Your task to perform on an android device: change alarm snooze length Image 0: 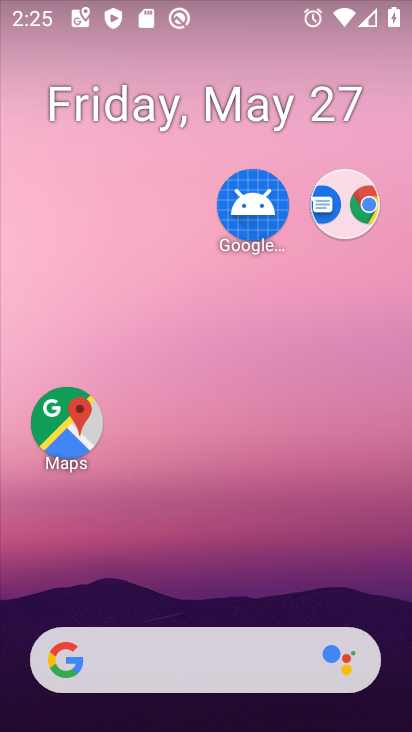
Step 0: drag from (249, 575) to (272, 345)
Your task to perform on an android device: change alarm snooze length Image 1: 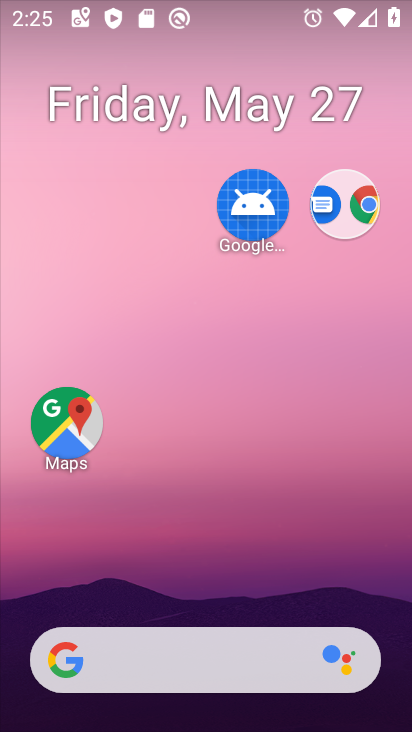
Step 1: drag from (222, 689) to (240, 340)
Your task to perform on an android device: change alarm snooze length Image 2: 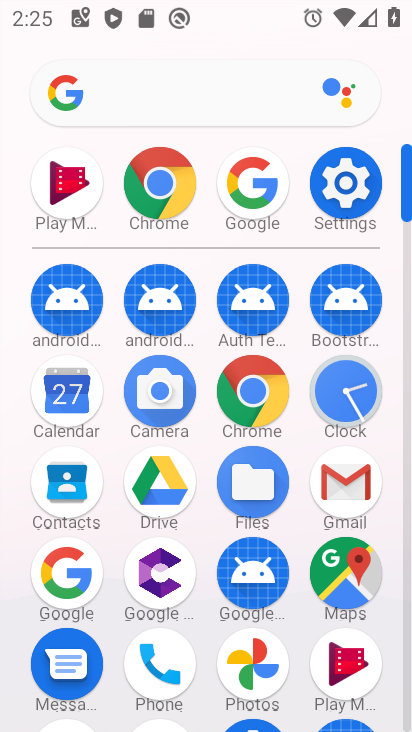
Step 2: click (353, 404)
Your task to perform on an android device: change alarm snooze length Image 3: 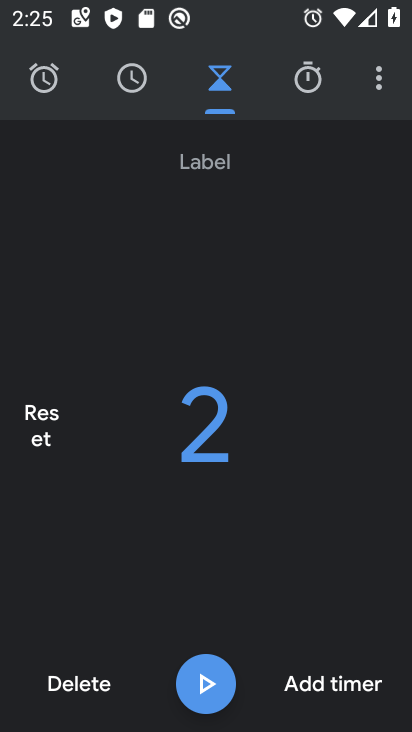
Step 3: click (387, 80)
Your task to perform on an android device: change alarm snooze length Image 4: 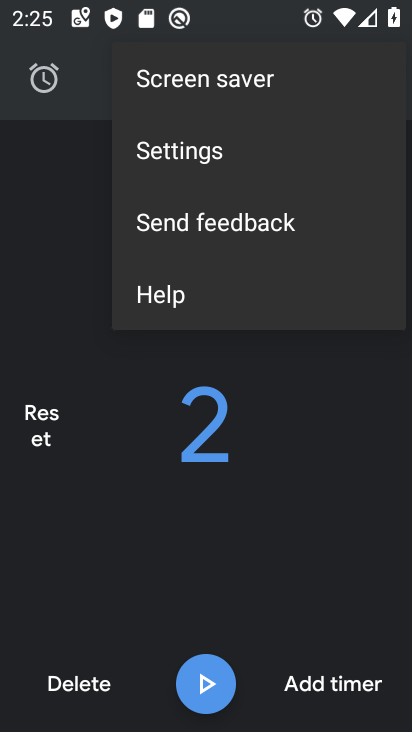
Step 4: click (231, 156)
Your task to perform on an android device: change alarm snooze length Image 5: 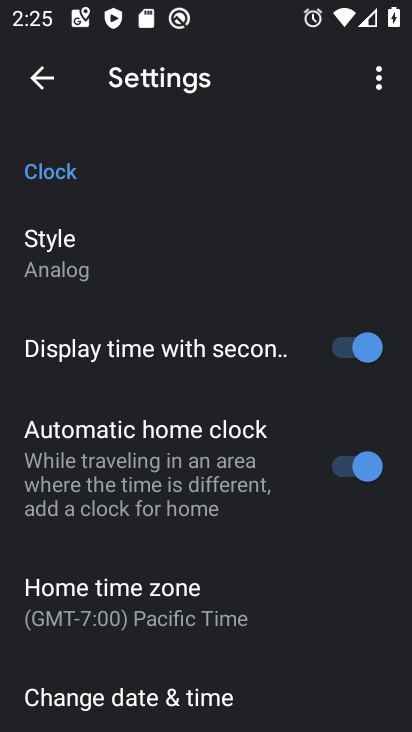
Step 5: drag from (227, 285) to (258, 163)
Your task to perform on an android device: change alarm snooze length Image 6: 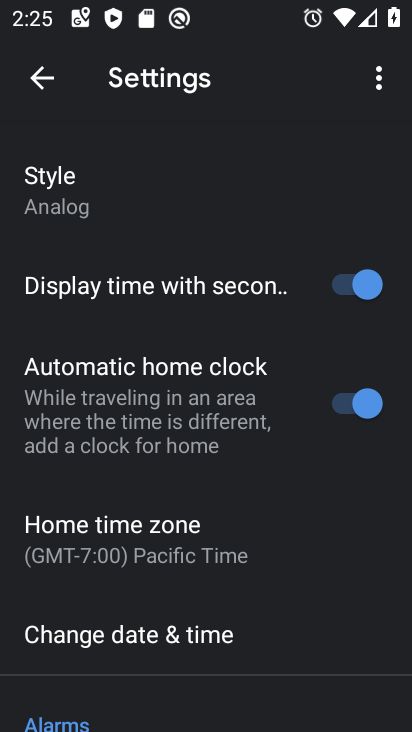
Step 6: drag from (199, 507) to (215, 268)
Your task to perform on an android device: change alarm snooze length Image 7: 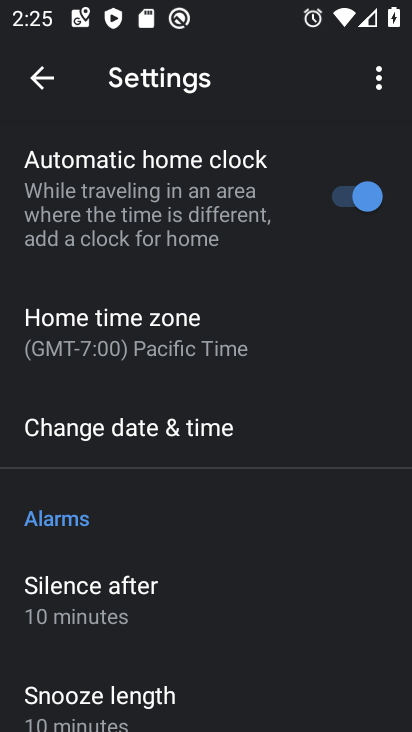
Step 7: drag from (186, 579) to (202, 451)
Your task to perform on an android device: change alarm snooze length Image 8: 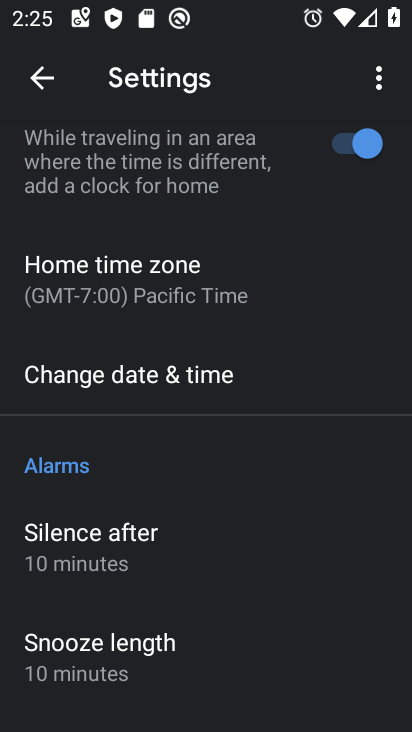
Step 8: click (138, 653)
Your task to perform on an android device: change alarm snooze length Image 9: 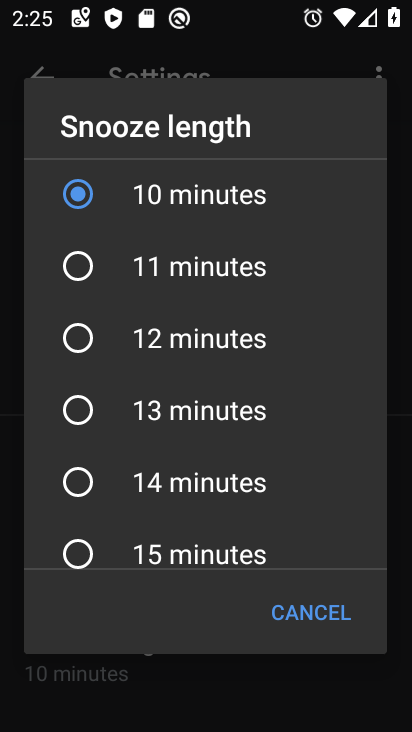
Step 9: click (159, 355)
Your task to perform on an android device: change alarm snooze length Image 10: 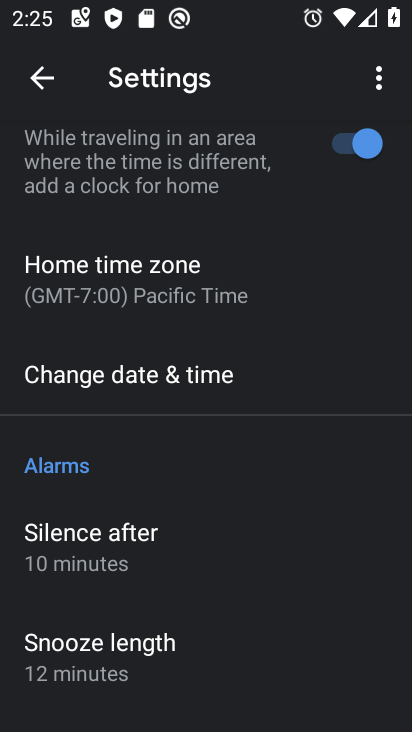
Step 10: task complete